Your task to perform on an android device: manage bookmarks in the chrome app Image 0: 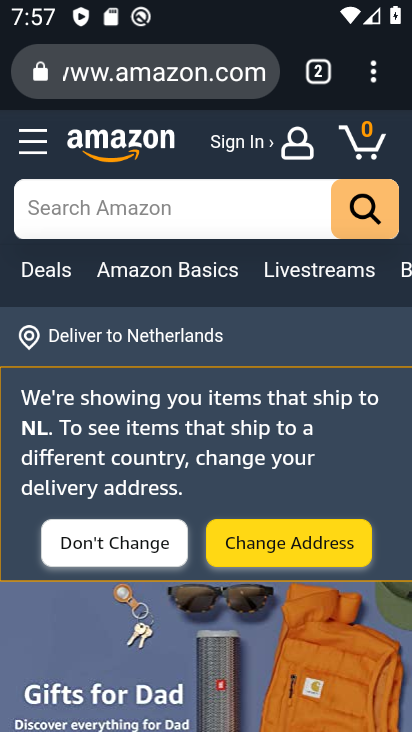
Step 0: click (370, 81)
Your task to perform on an android device: manage bookmarks in the chrome app Image 1: 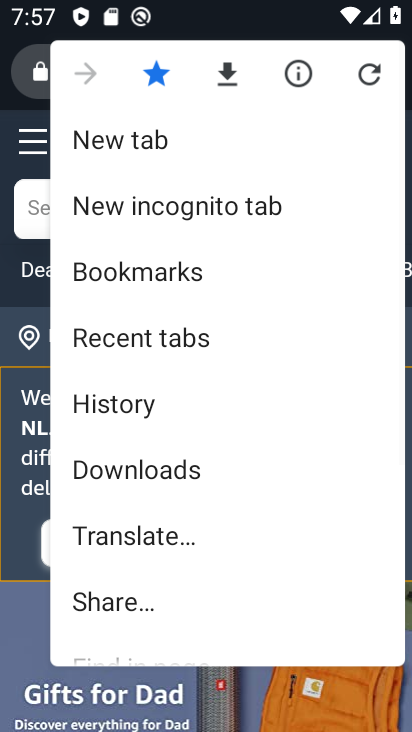
Step 1: click (222, 263)
Your task to perform on an android device: manage bookmarks in the chrome app Image 2: 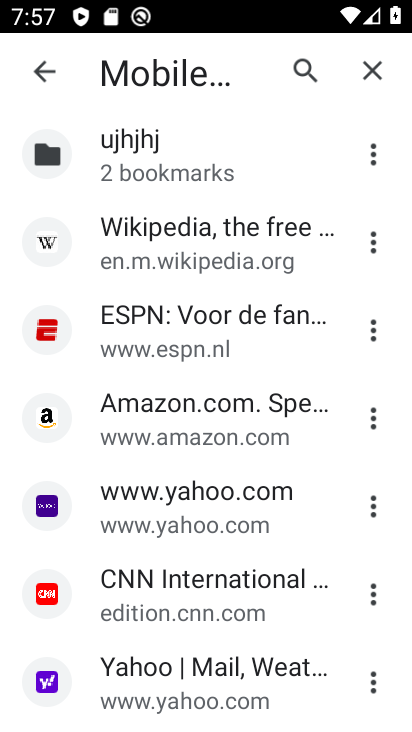
Step 2: click (366, 162)
Your task to perform on an android device: manage bookmarks in the chrome app Image 3: 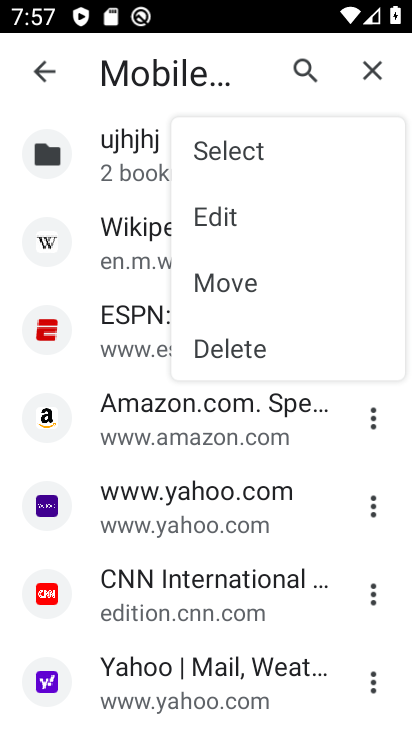
Step 3: click (239, 345)
Your task to perform on an android device: manage bookmarks in the chrome app Image 4: 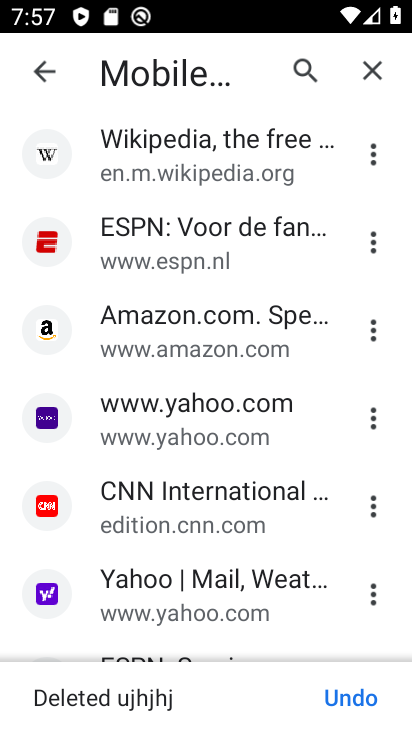
Step 4: task complete